Your task to perform on an android device: Open privacy settings Image 0: 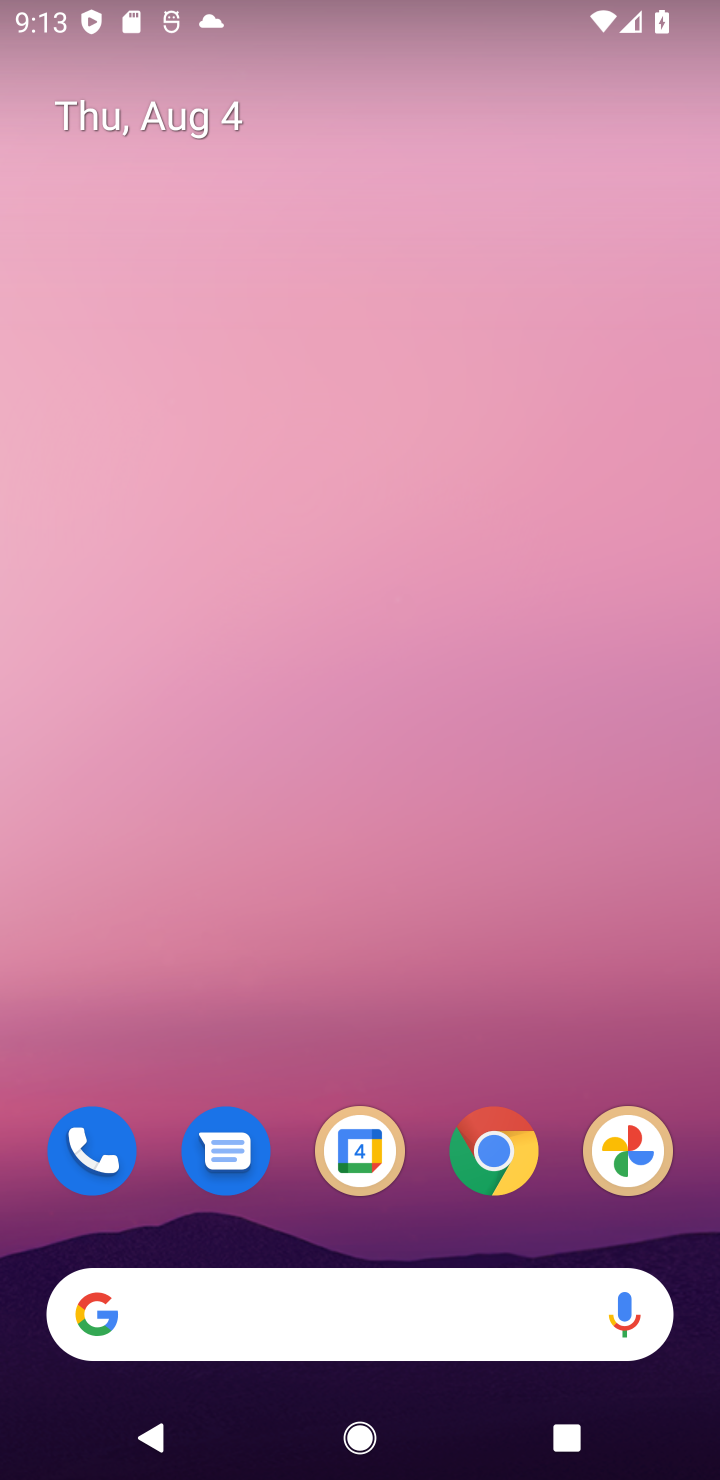
Step 0: drag from (382, 943) to (397, 209)
Your task to perform on an android device: Open privacy settings Image 1: 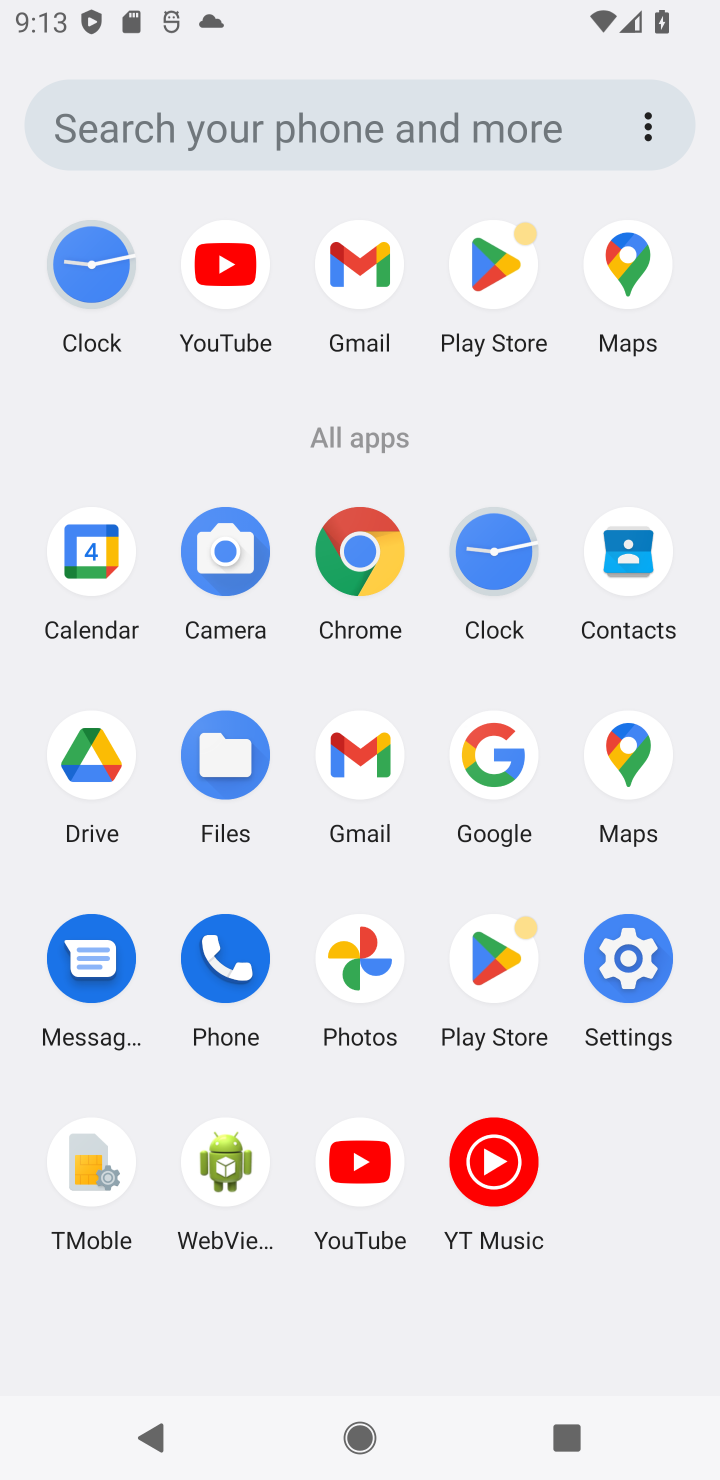
Step 1: click (658, 955)
Your task to perform on an android device: Open privacy settings Image 2: 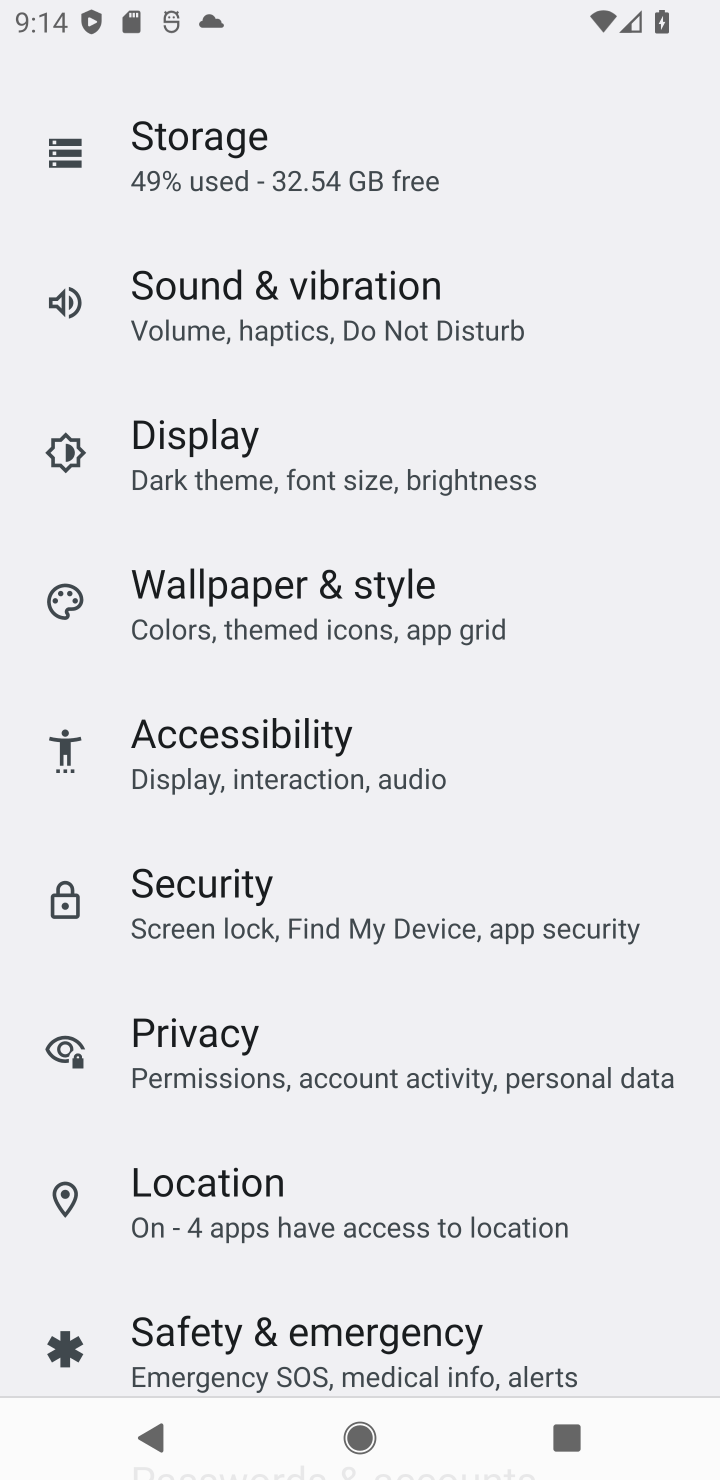
Step 2: click (297, 1062)
Your task to perform on an android device: Open privacy settings Image 3: 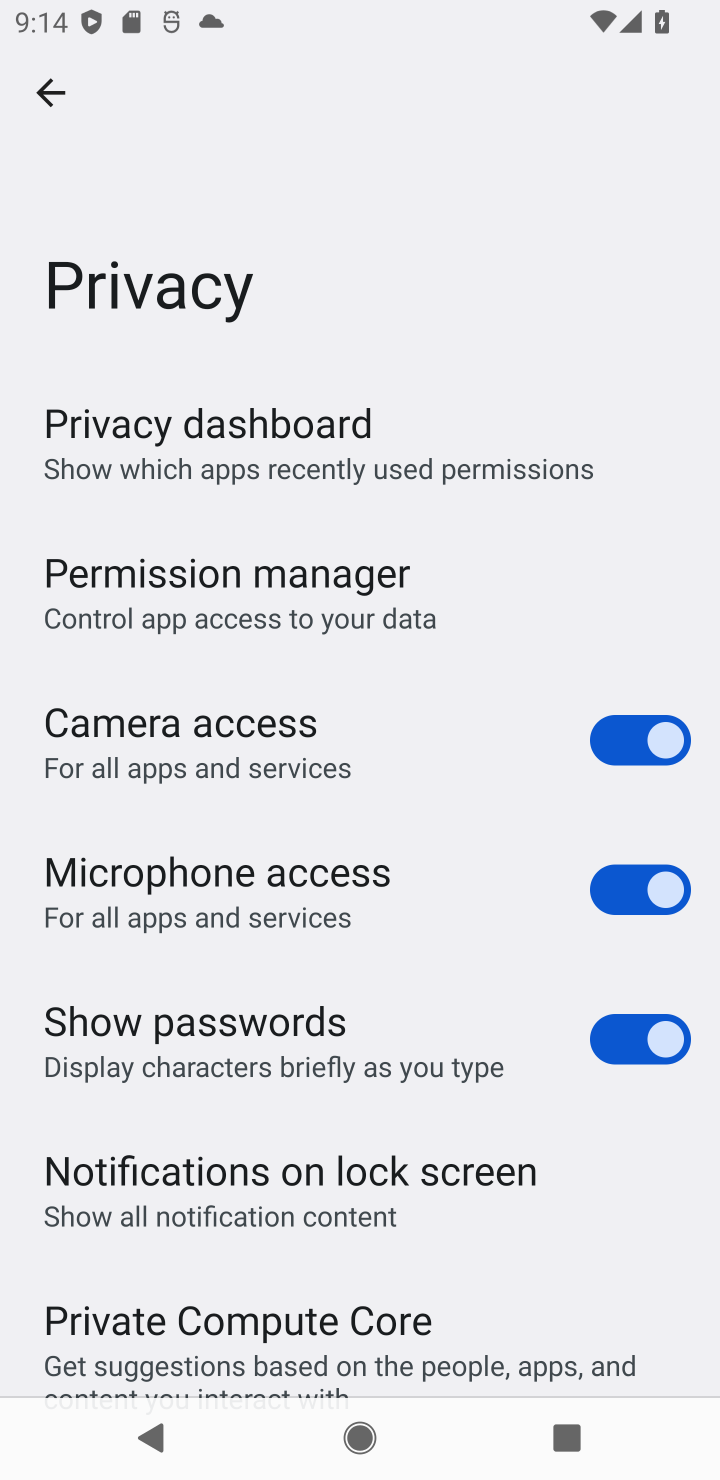
Step 3: task complete